Your task to perform on an android device: Open wifi settings Image 0: 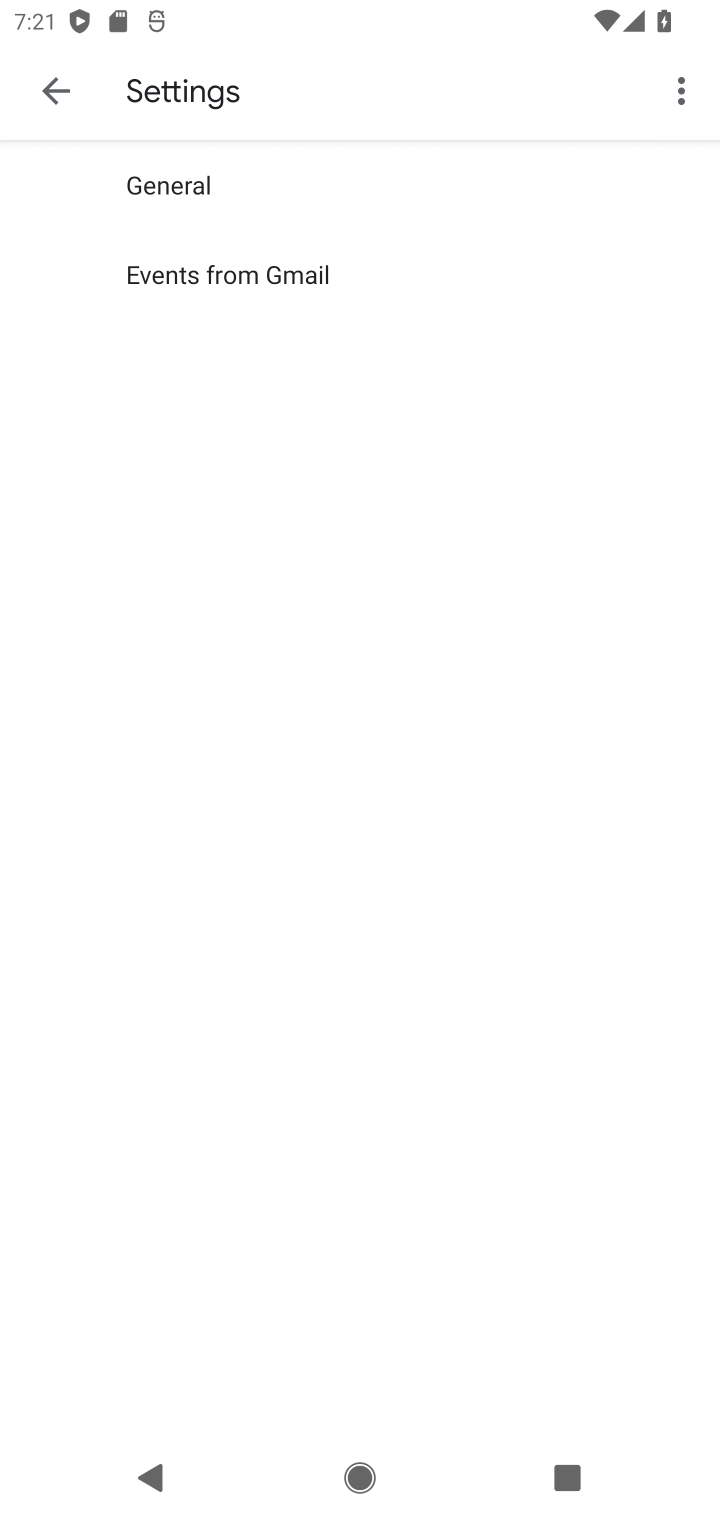
Step 0: task complete